Your task to perform on an android device: Open calendar and show me the third week of next month Image 0: 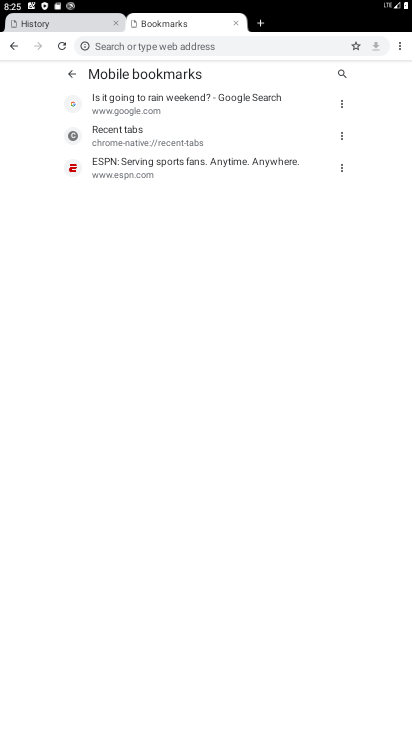
Step 0: press home button
Your task to perform on an android device: Open calendar and show me the third week of next month Image 1: 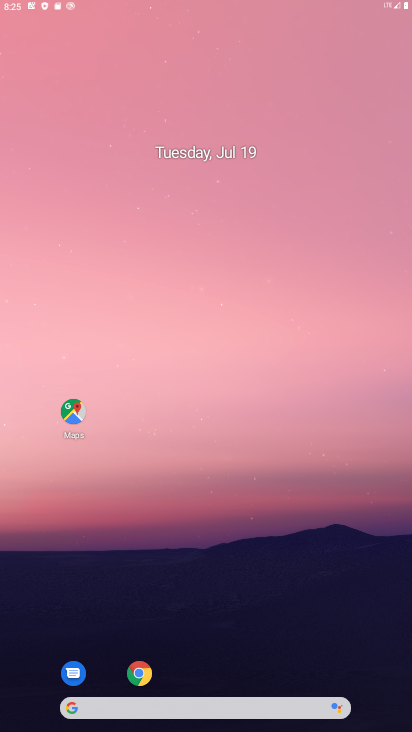
Step 1: drag from (402, 694) to (260, 2)
Your task to perform on an android device: Open calendar and show me the third week of next month Image 2: 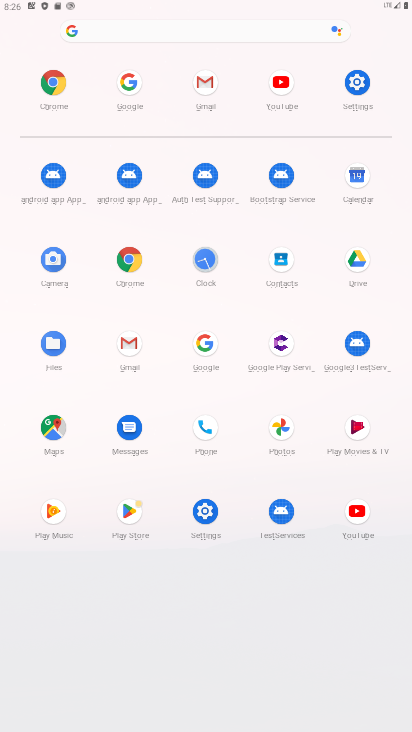
Step 2: click (355, 182)
Your task to perform on an android device: Open calendar and show me the third week of next month Image 3: 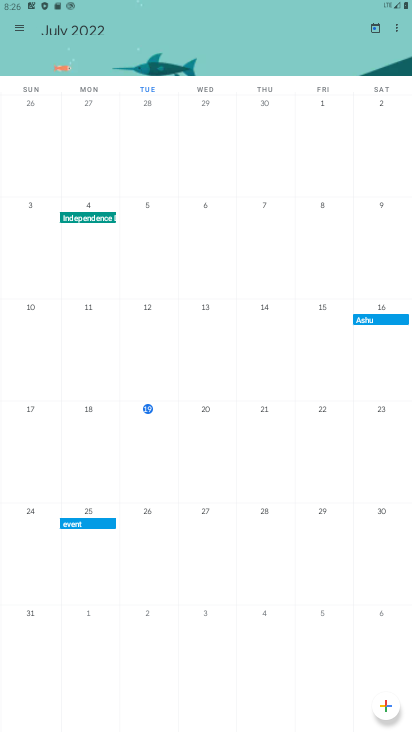
Step 3: drag from (387, 264) to (25, 328)
Your task to perform on an android device: Open calendar and show me the third week of next month Image 4: 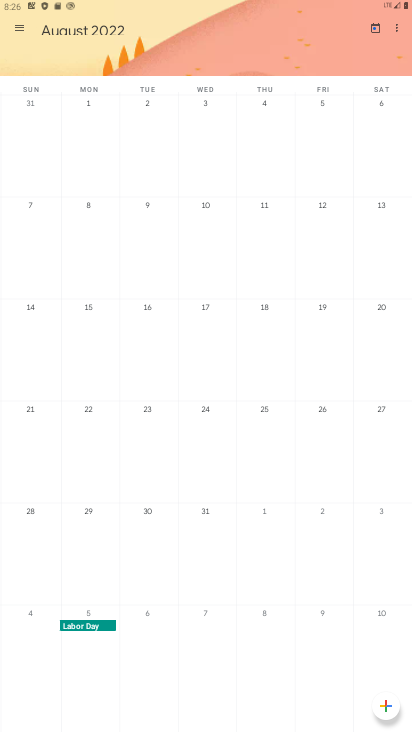
Step 4: click (35, 404)
Your task to perform on an android device: Open calendar and show me the third week of next month Image 5: 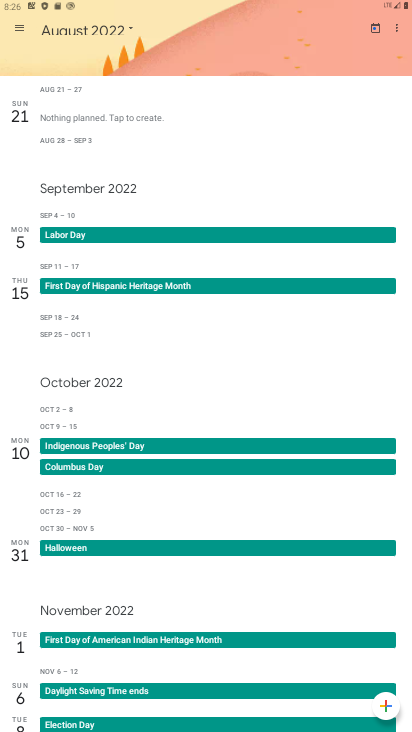
Step 5: task complete